Your task to perform on an android device: find which apps use the phone's location Image 0: 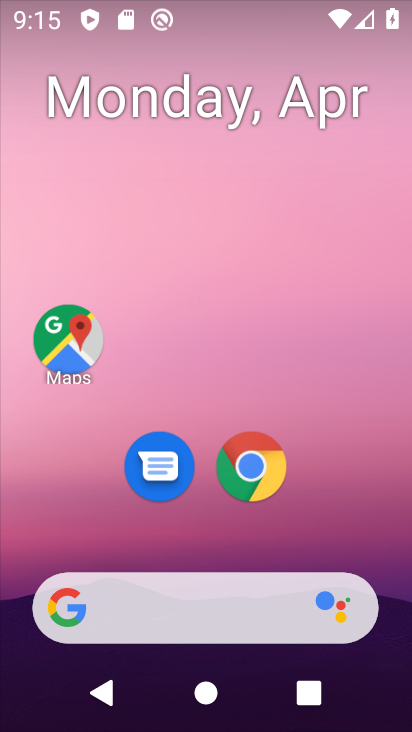
Step 0: drag from (226, 541) to (233, 29)
Your task to perform on an android device: find which apps use the phone's location Image 1: 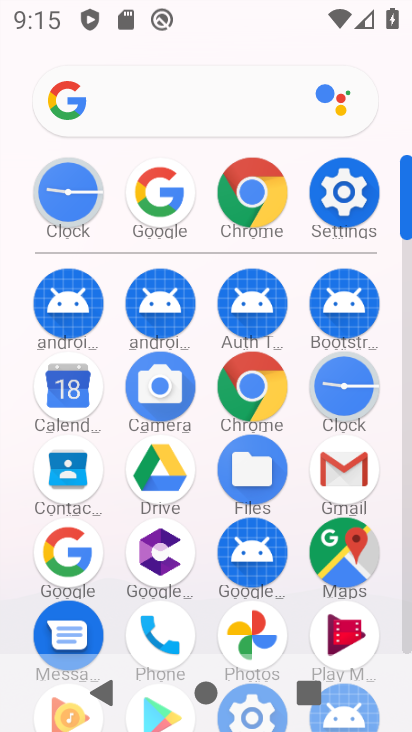
Step 1: click (363, 222)
Your task to perform on an android device: find which apps use the phone's location Image 2: 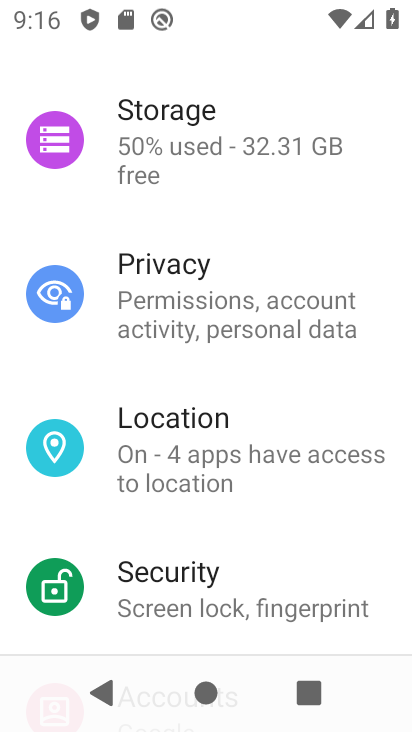
Step 2: click (218, 454)
Your task to perform on an android device: find which apps use the phone's location Image 3: 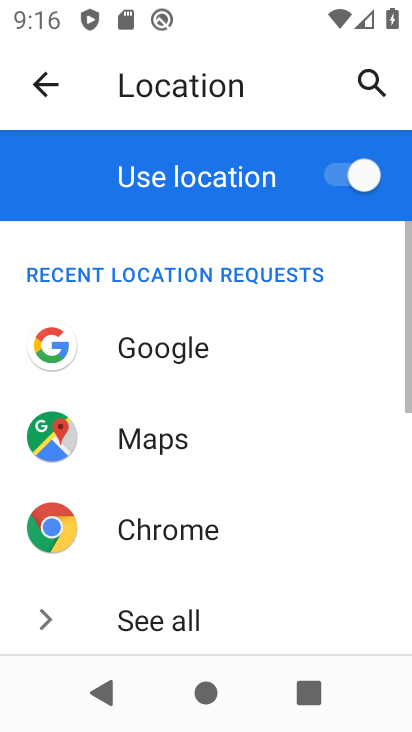
Step 3: drag from (231, 584) to (271, 438)
Your task to perform on an android device: find which apps use the phone's location Image 4: 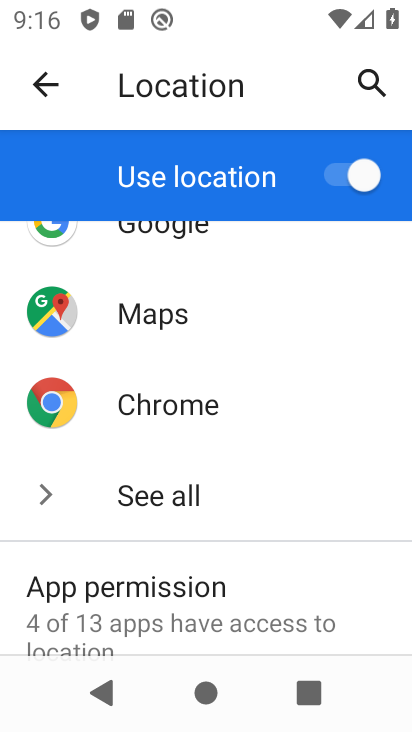
Step 4: drag from (253, 496) to (286, 413)
Your task to perform on an android device: find which apps use the phone's location Image 5: 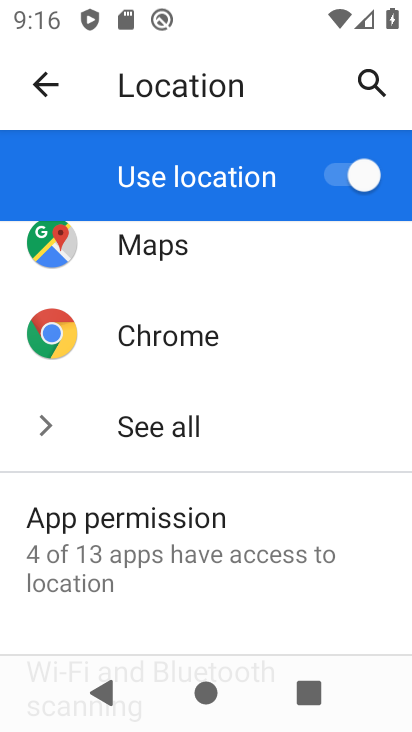
Step 5: click (171, 518)
Your task to perform on an android device: find which apps use the phone's location Image 6: 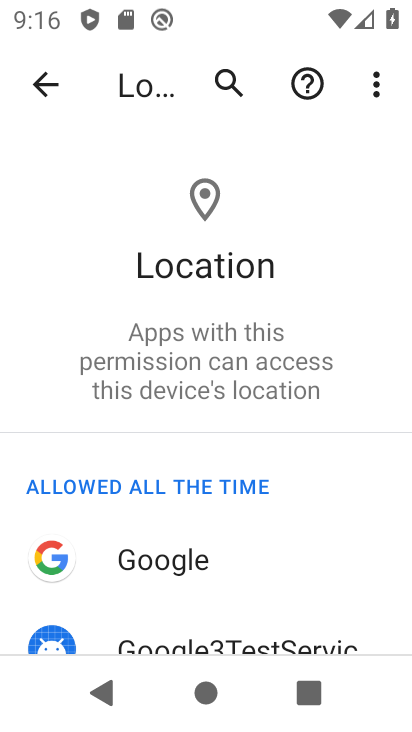
Step 6: drag from (215, 560) to (261, 453)
Your task to perform on an android device: find which apps use the phone's location Image 7: 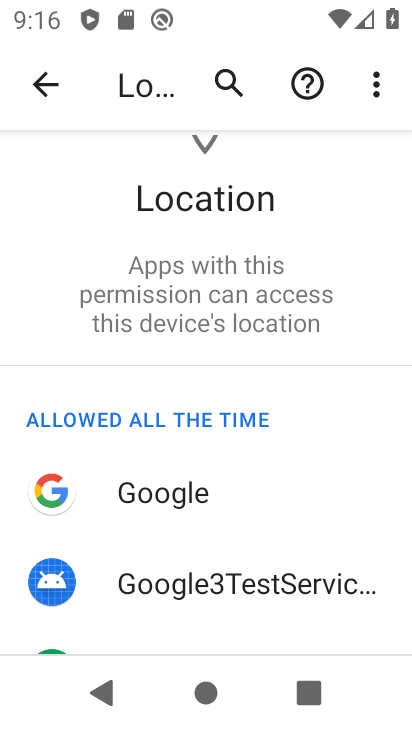
Step 7: drag from (243, 540) to (302, 400)
Your task to perform on an android device: find which apps use the phone's location Image 8: 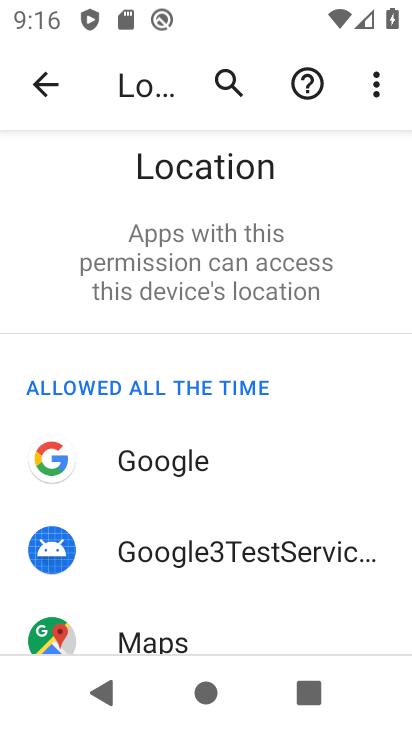
Step 8: drag from (208, 533) to (263, 402)
Your task to perform on an android device: find which apps use the phone's location Image 9: 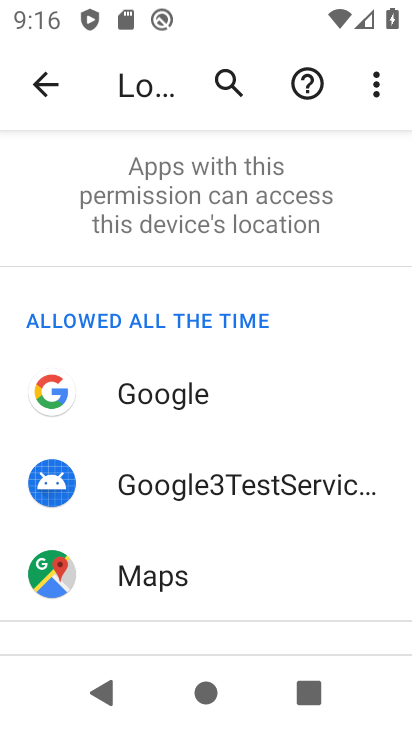
Step 9: click (164, 572)
Your task to perform on an android device: find which apps use the phone's location Image 10: 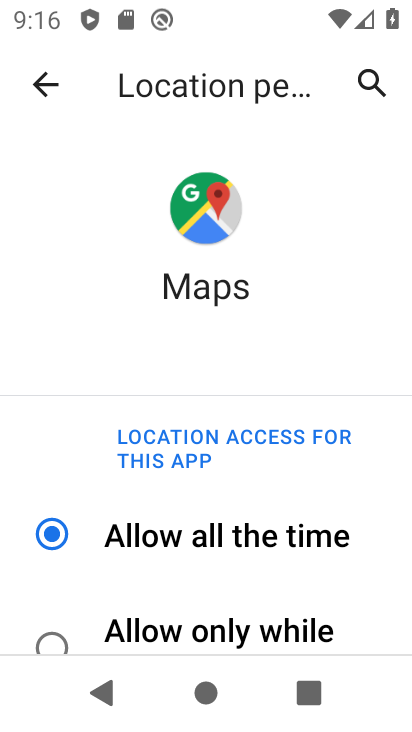
Step 10: task complete